Your task to perform on an android device: Go to battery settings Image 0: 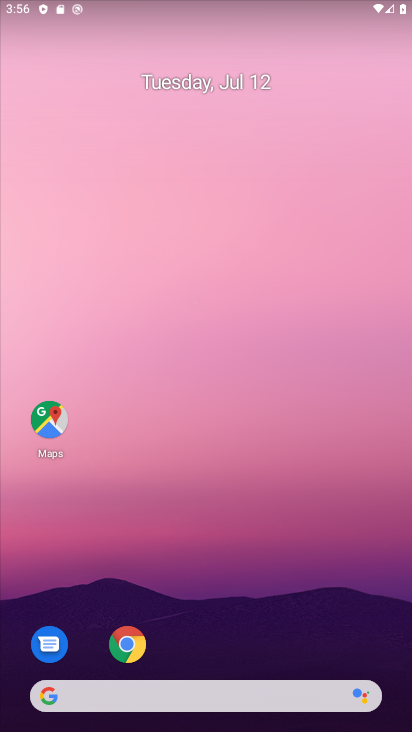
Step 0: drag from (216, 674) to (298, 132)
Your task to perform on an android device: Go to battery settings Image 1: 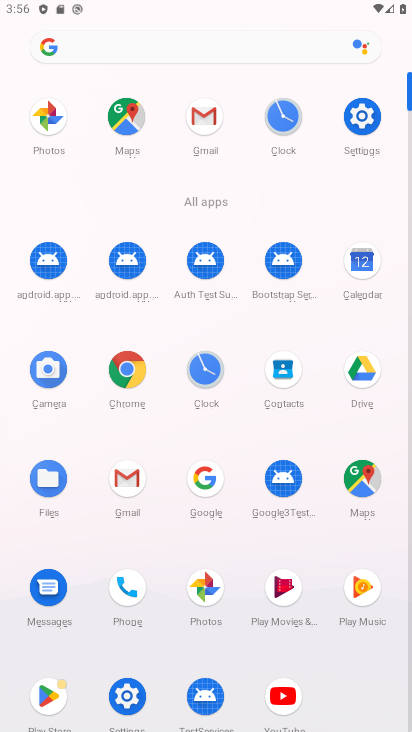
Step 1: click (126, 698)
Your task to perform on an android device: Go to battery settings Image 2: 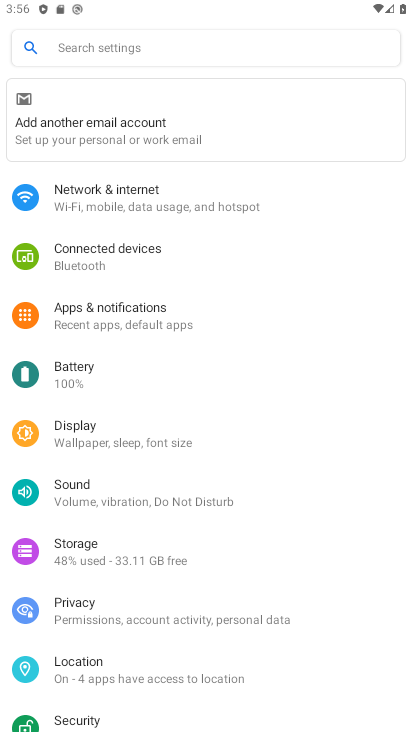
Step 2: click (109, 378)
Your task to perform on an android device: Go to battery settings Image 3: 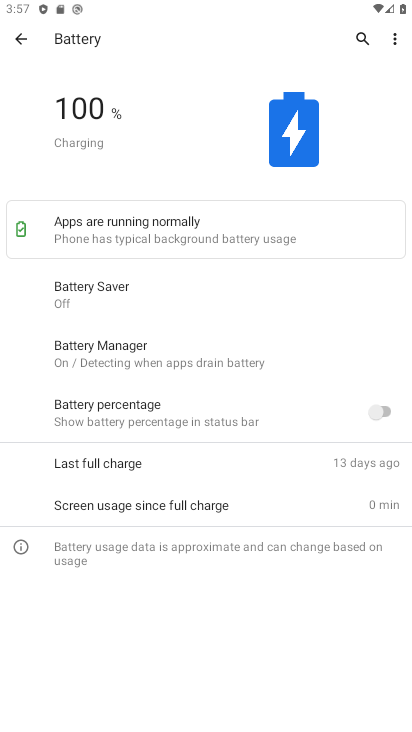
Step 3: task complete